Your task to perform on an android device: clear all cookies in the chrome app Image 0: 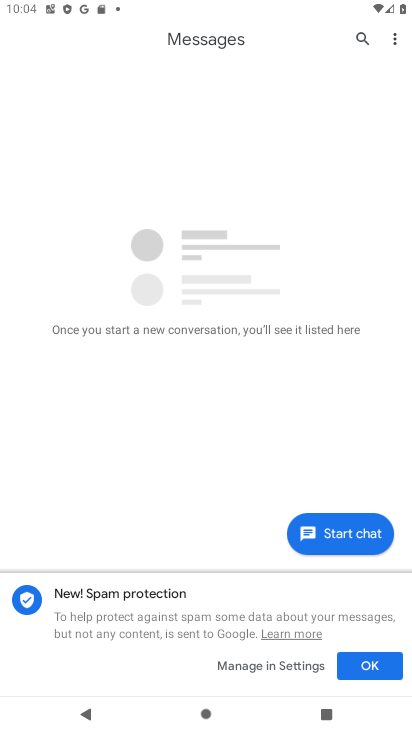
Step 0: press home button
Your task to perform on an android device: clear all cookies in the chrome app Image 1: 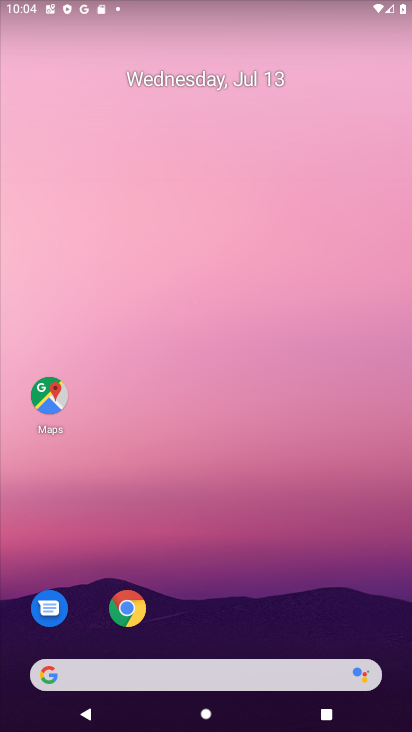
Step 1: click (127, 609)
Your task to perform on an android device: clear all cookies in the chrome app Image 2: 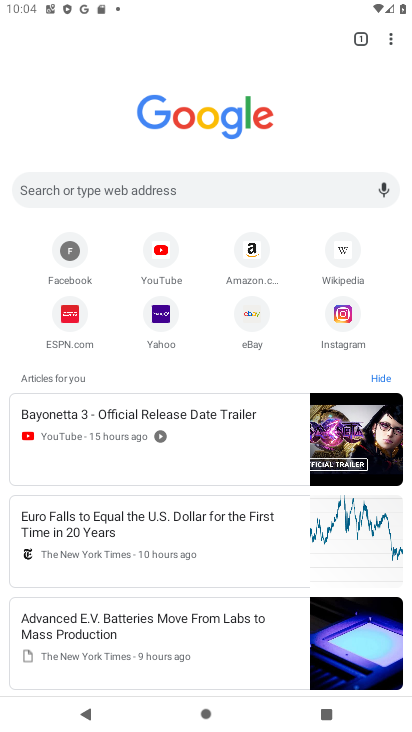
Step 2: click (390, 36)
Your task to perform on an android device: clear all cookies in the chrome app Image 3: 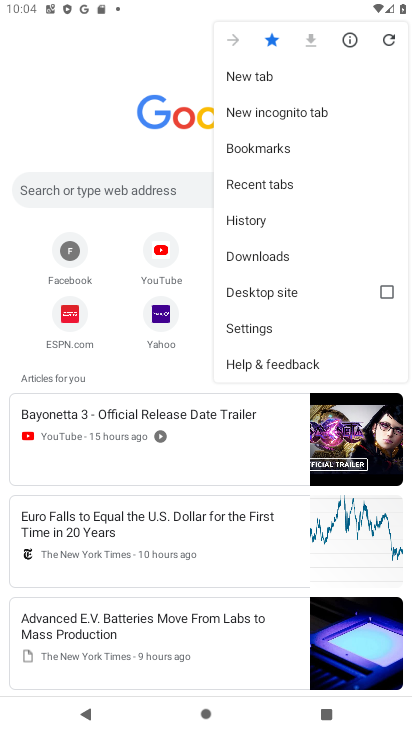
Step 3: click (262, 328)
Your task to perform on an android device: clear all cookies in the chrome app Image 4: 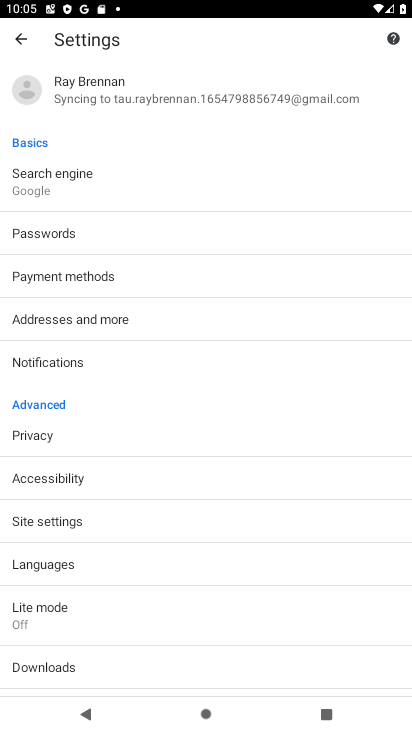
Step 4: click (46, 431)
Your task to perform on an android device: clear all cookies in the chrome app Image 5: 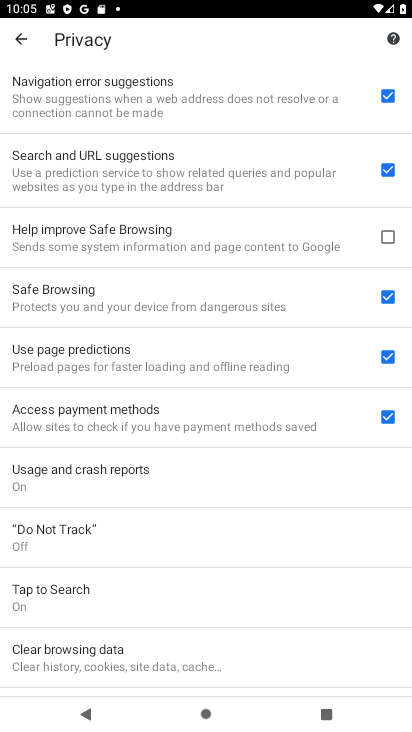
Step 5: click (81, 655)
Your task to perform on an android device: clear all cookies in the chrome app Image 6: 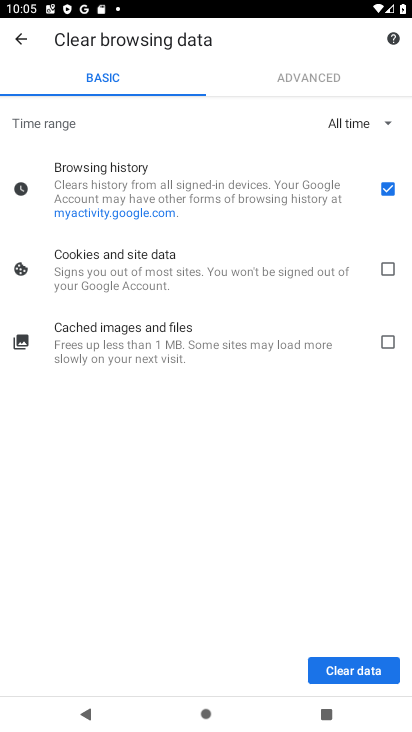
Step 6: click (387, 264)
Your task to perform on an android device: clear all cookies in the chrome app Image 7: 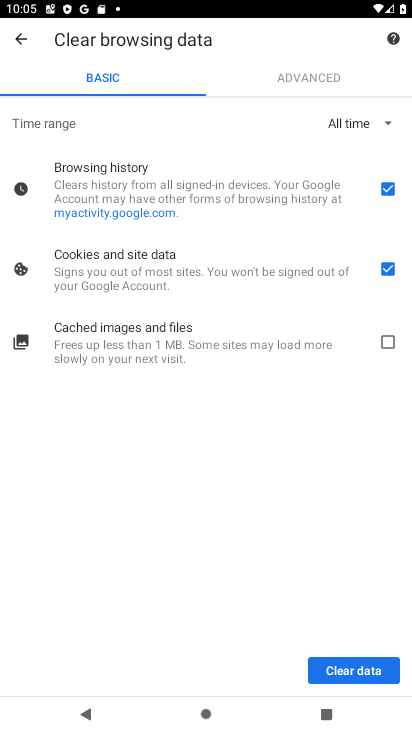
Step 7: click (387, 185)
Your task to perform on an android device: clear all cookies in the chrome app Image 8: 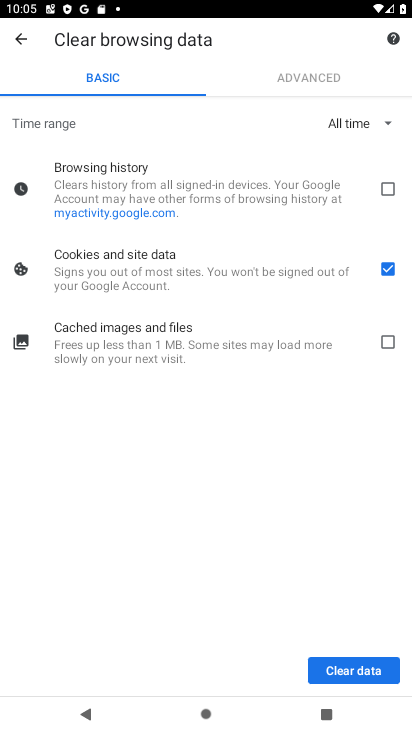
Step 8: click (354, 667)
Your task to perform on an android device: clear all cookies in the chrome app Image 9: 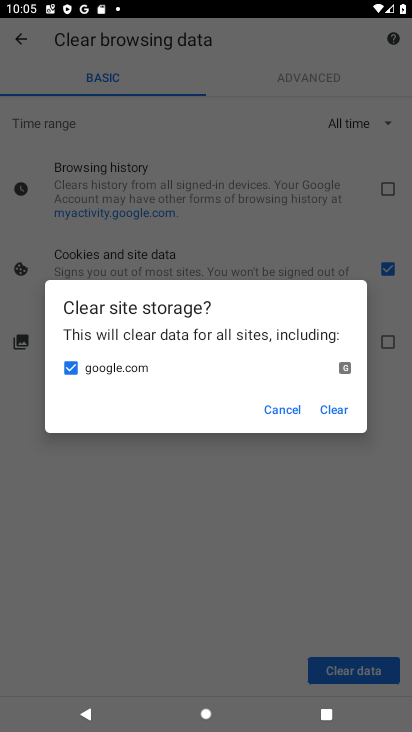
Step 9: click (338, 407)
Your task to perform on an android device: clear all cookies in the chrome app Image 10: 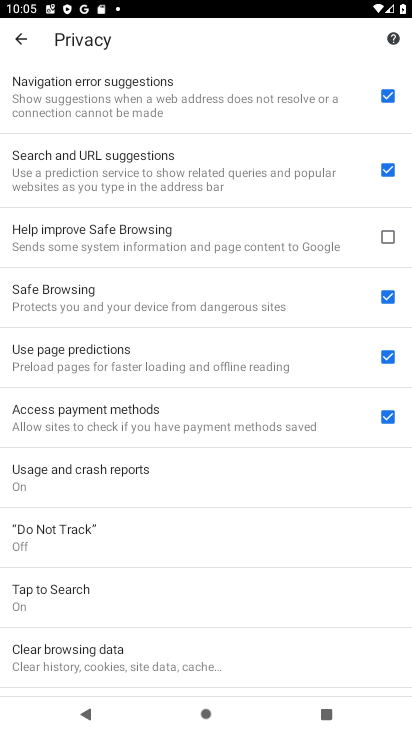
Step 10: task complete